Your task to perform on an android device: remove spam from my inbox in the gmail app Image 0: 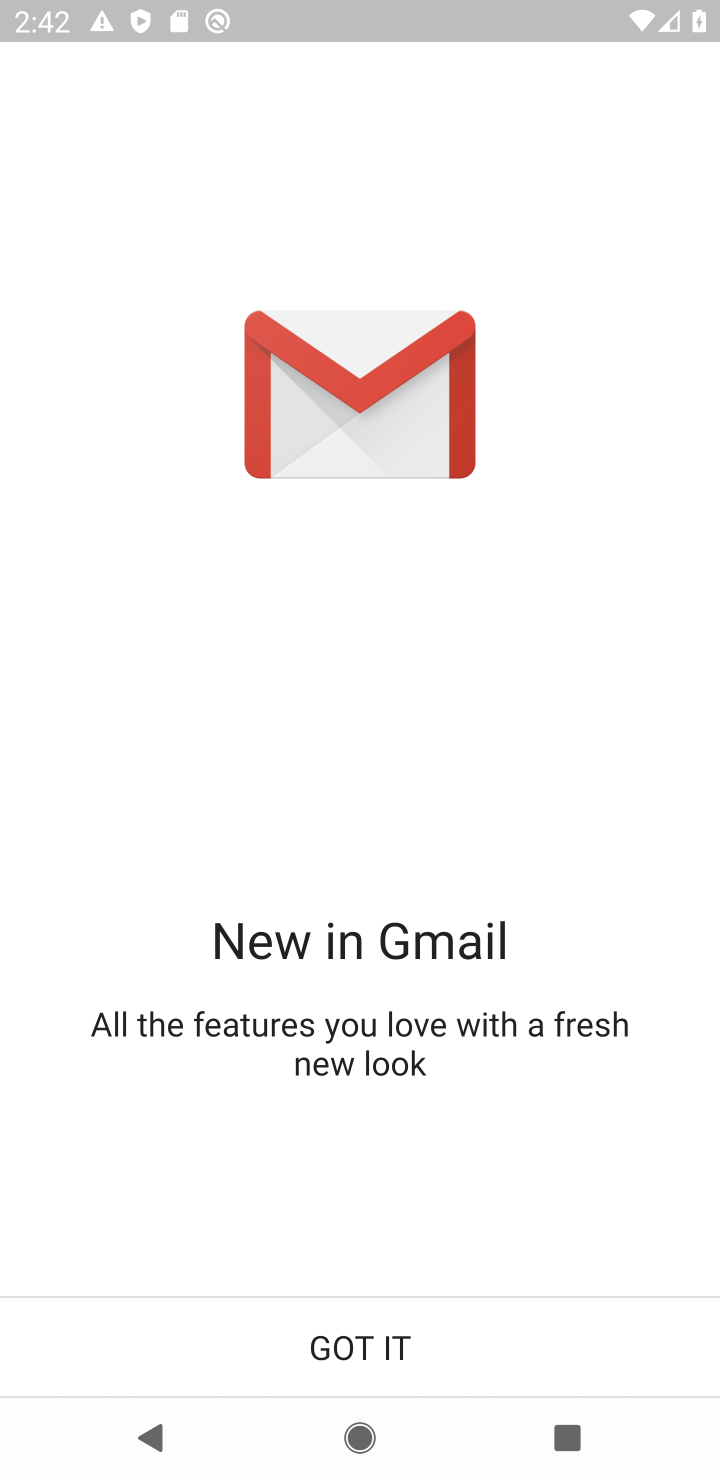
Step 0: click (464, 1334)
Your task to perform on an android device: remove spam from my inbox in the gmail app Image 1: 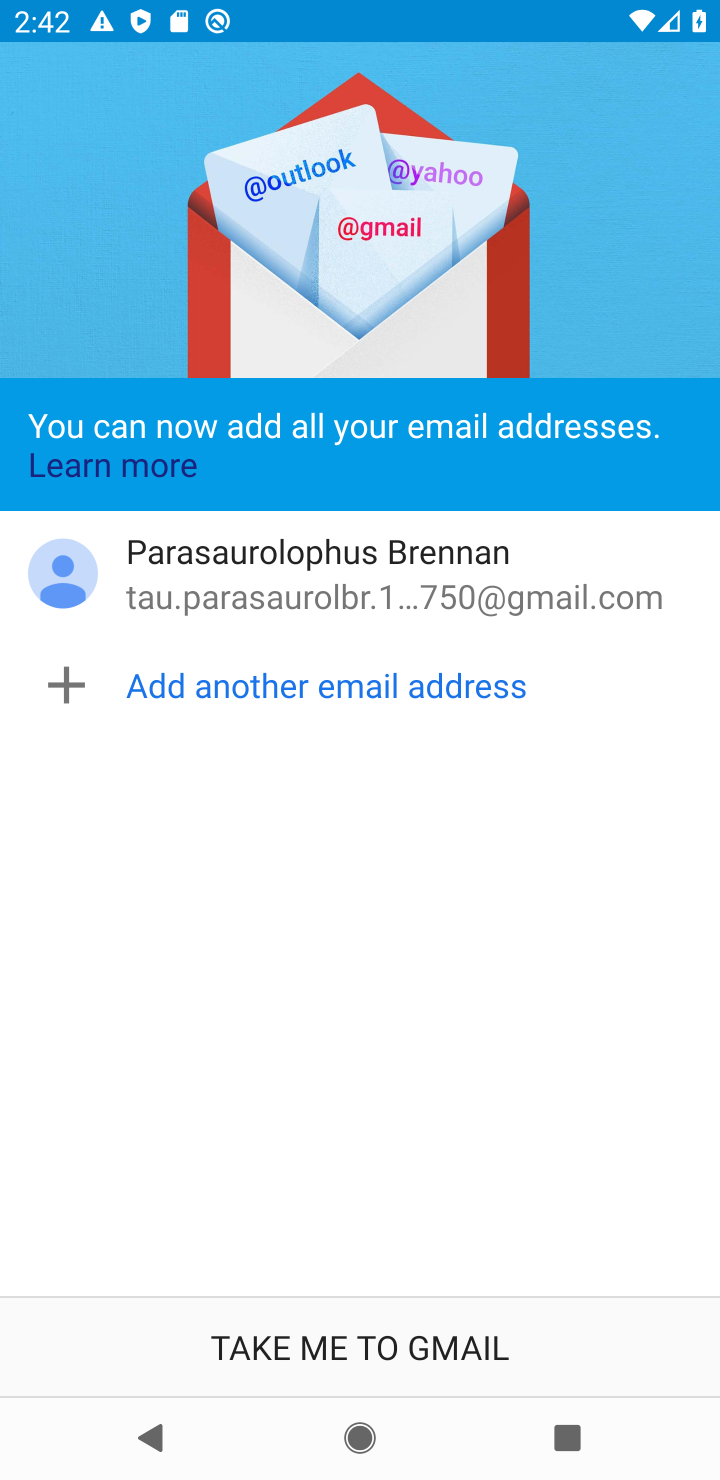
Step 1: click (474, 1359)
Your task to perform on an android device: remove spam from my inbox in the gmail app Image 2: 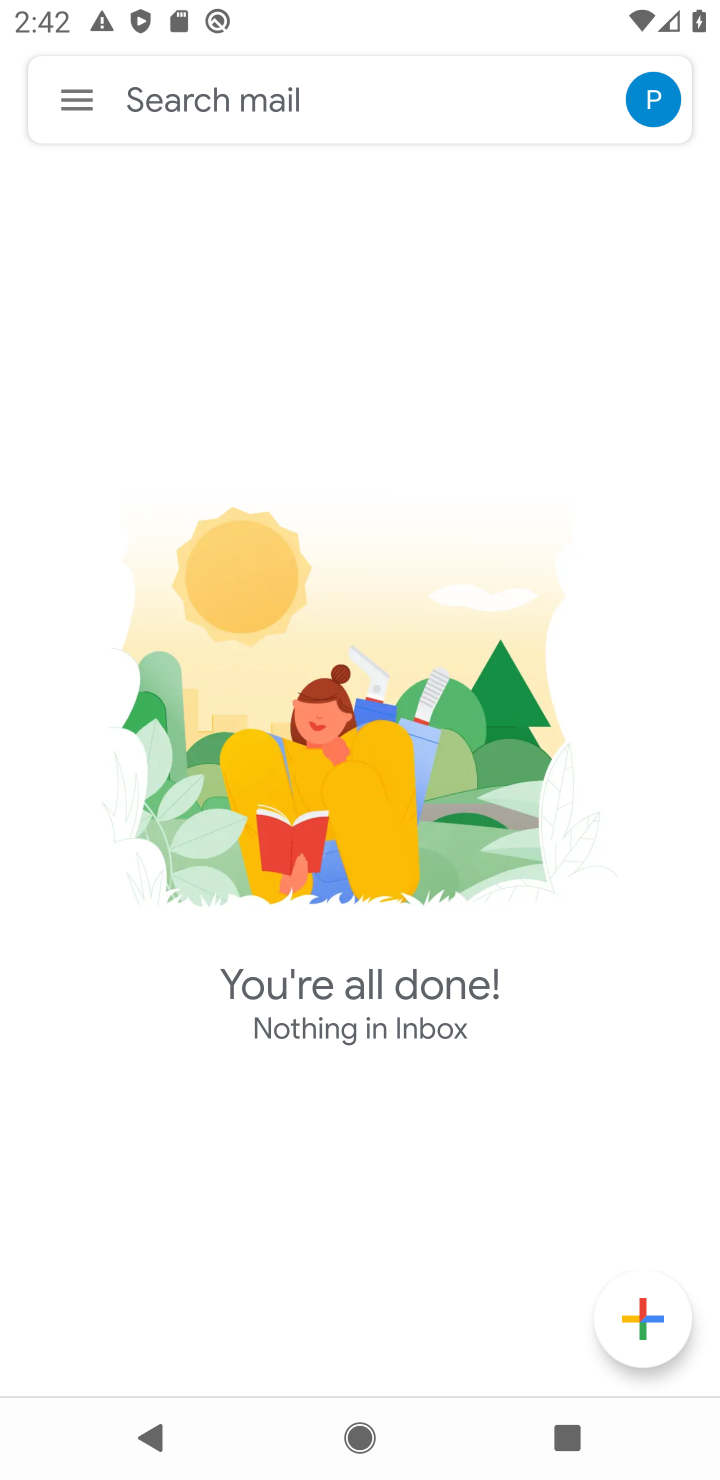
Step 2: click (60, 86)
Your task to perform on an android device: remove spam from my inbox in the gmail app Image 3: 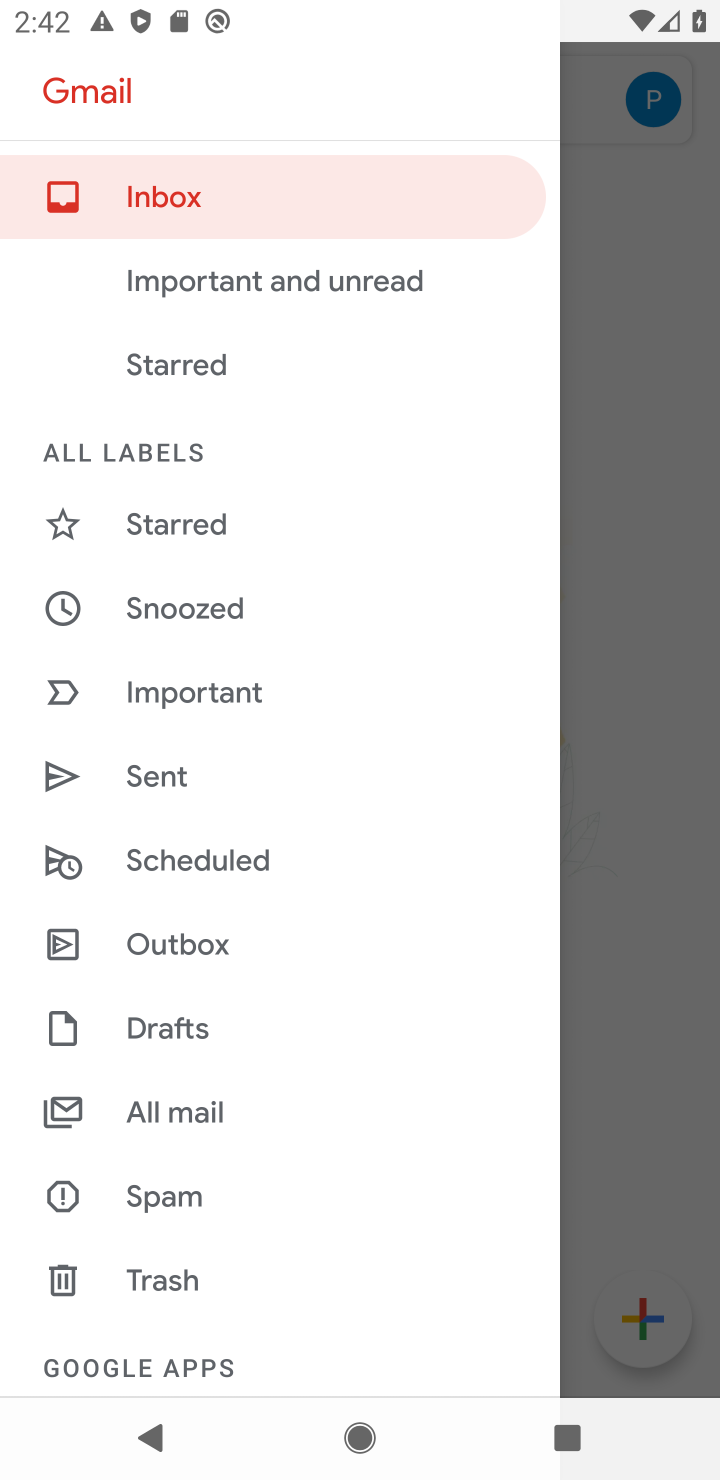
Step 3: click (169, 1190)
Your task to perform on an android device: remove spam from my inbox in the gmail app Image 4: 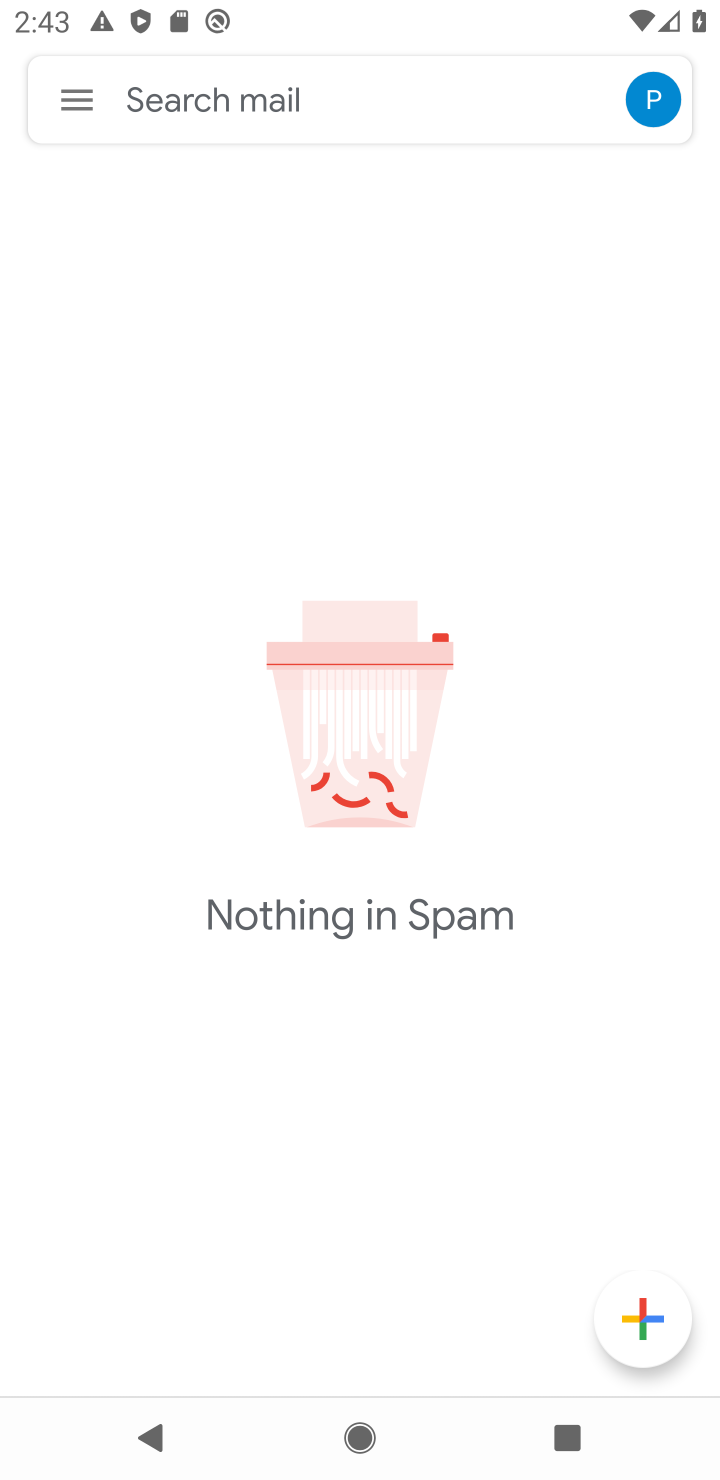
Step 4: task complete